Your task to perform on an android device: clear history in the chrome app Image 0: 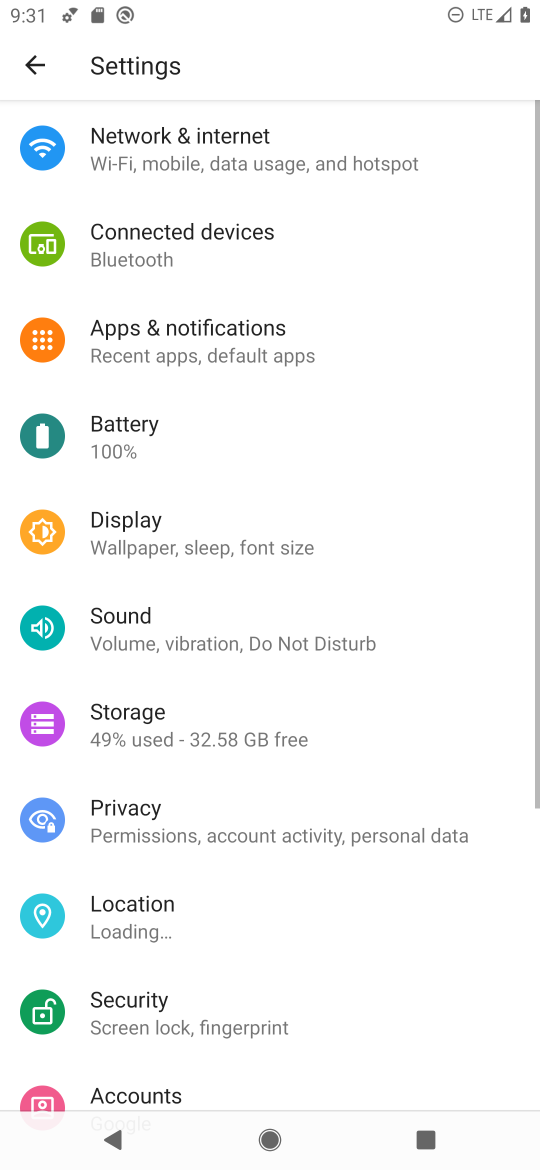
Step 0: press home button
Your task to perform on an android device: clear history in the chrome app Image 1: 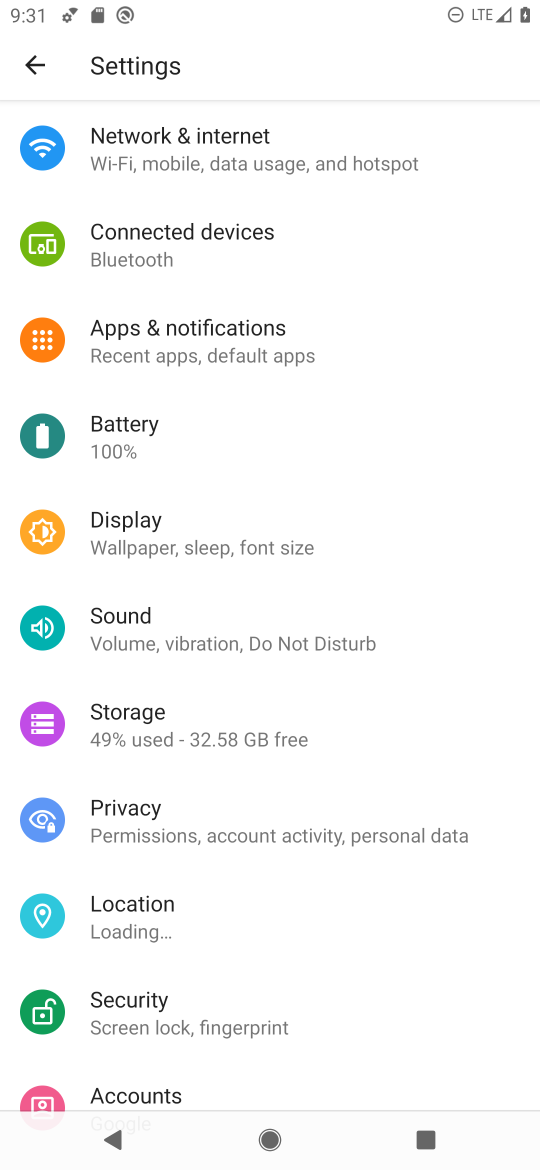
Step 1: press home button
Your task to perform on an android device: clear history in the chrome app Image 2: 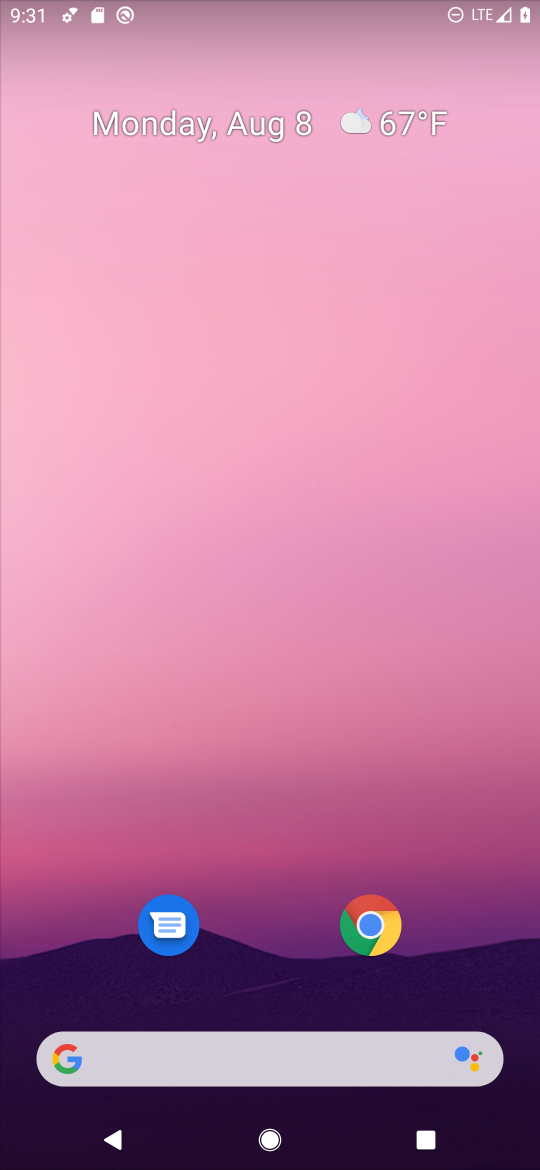
Step 2: drag from (247, 973) to (148, 9)
Your task to perform on an android device: clear history in the chrome app Image 3: 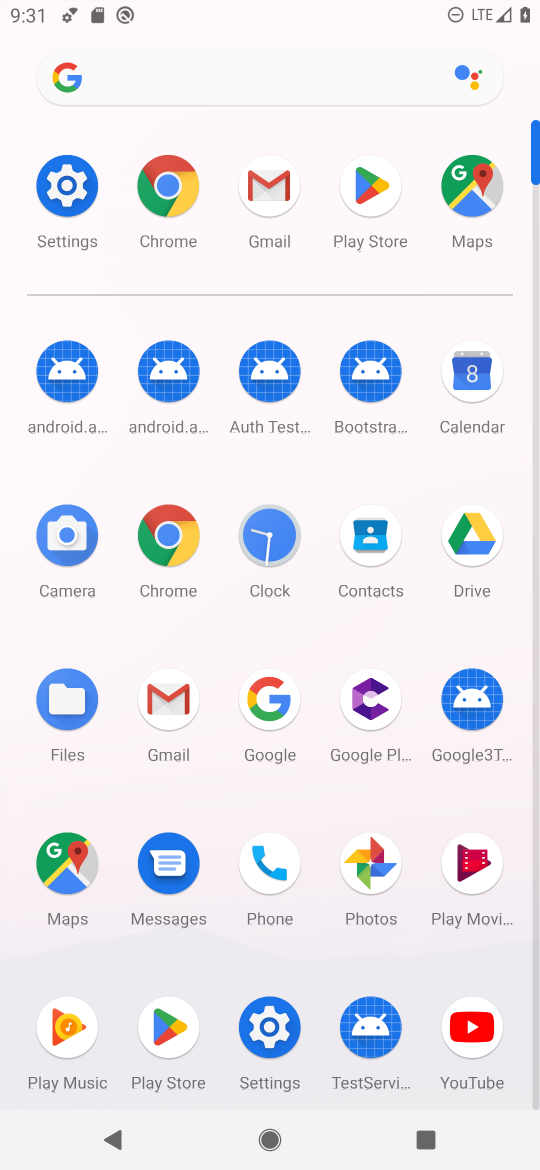
Step 3: click (168, 538)
Your task to perform on an android device: clear history in the chrome app Image 4: 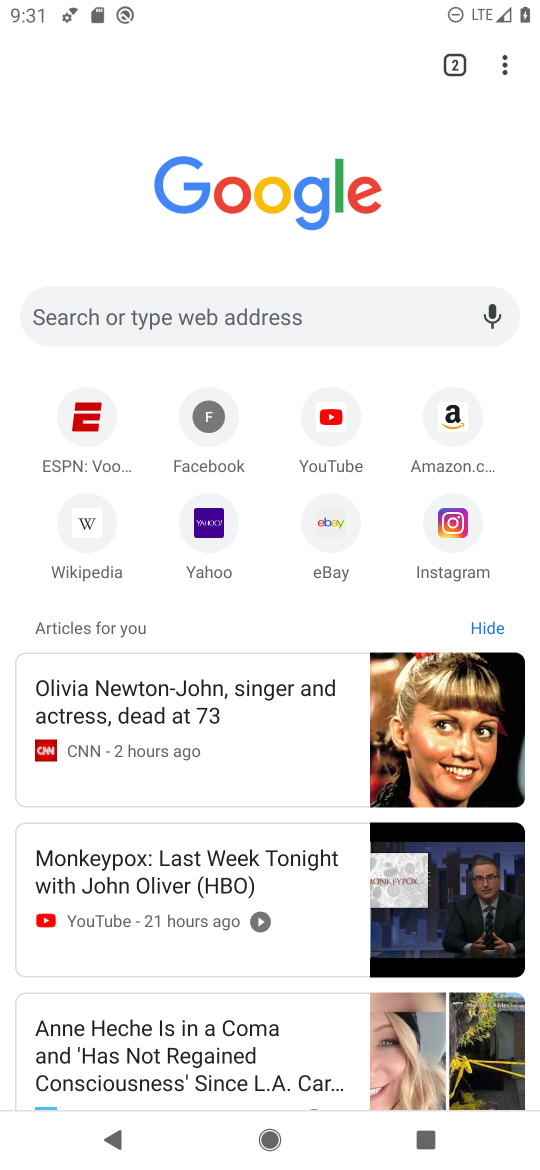
Step 4: drag from (512, 59) to (277, 457)
Your task to perform on an android device: clear history in the chrome app Image 5: 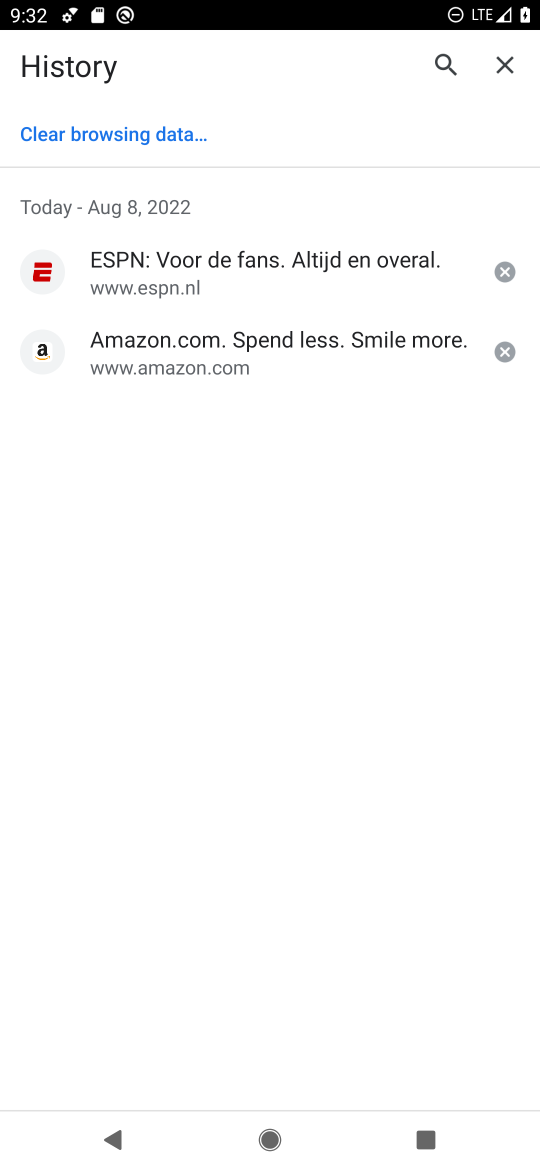
Step 5: click (131, 144)
Your task to perform on an android device: clear history in the chrome app Image 6: 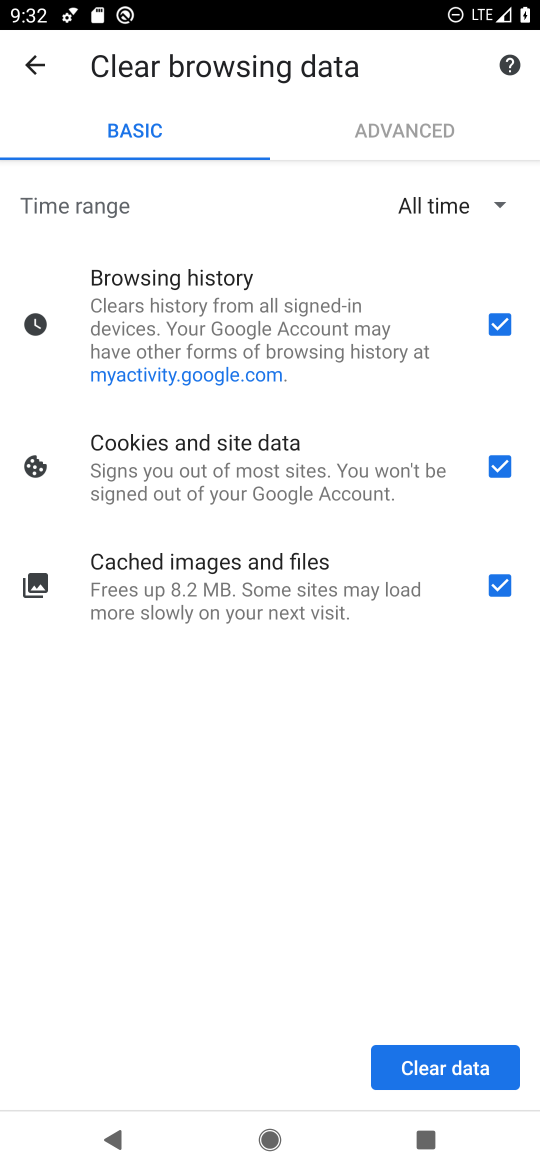
Step 6: click (423, 1063)
Your task to perform on an android device: clear history in the chrome app Image 7: 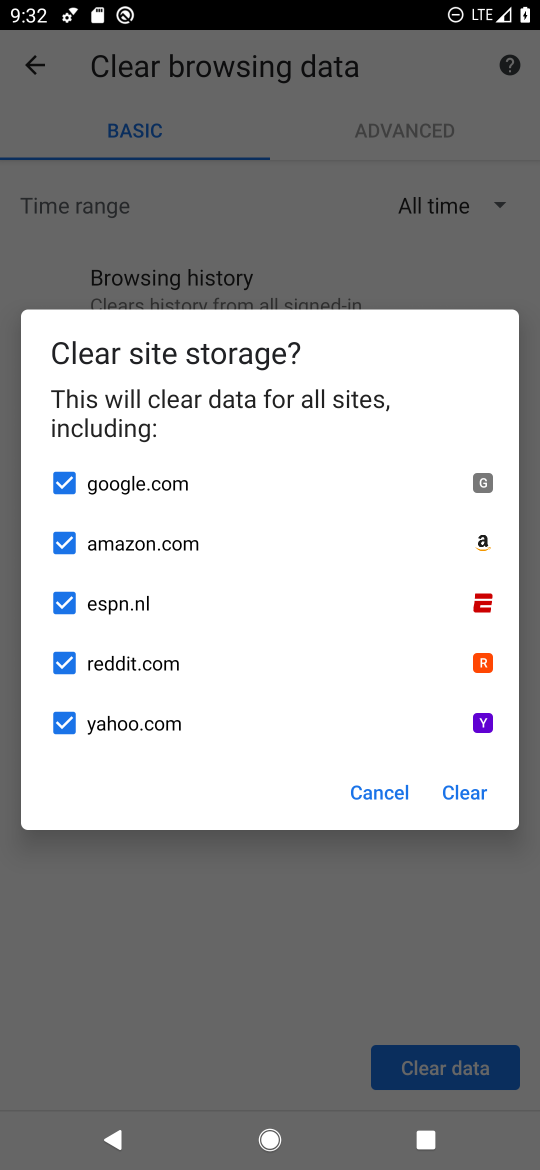
Step 7: click (467, 798)
Your task to perform on an android device: clear history in the chrome app Image 8: 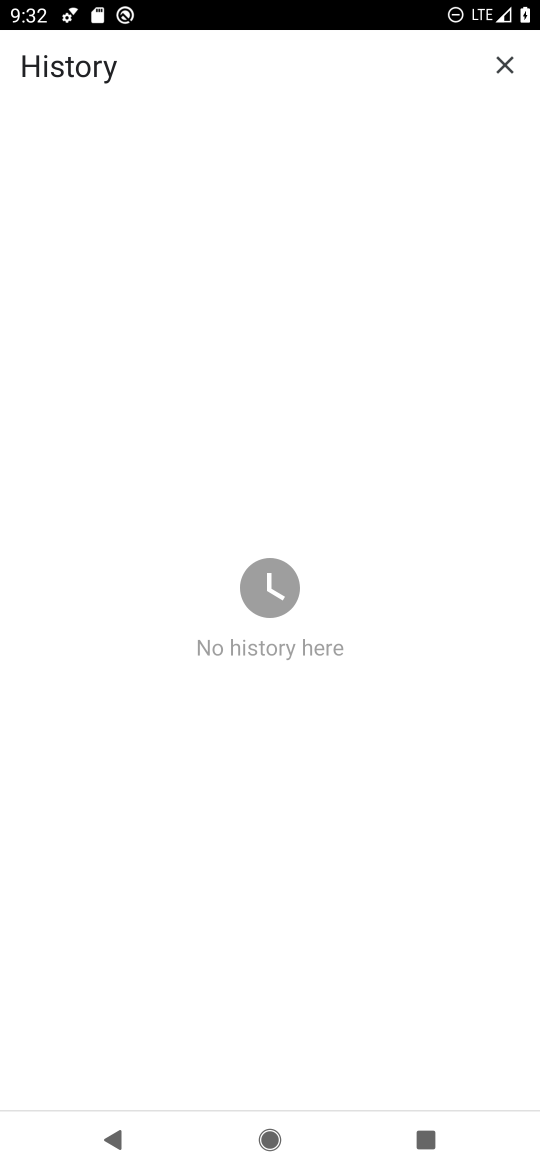
Step 8: task complete